Your task to perform on an android device: refresh tabs in the chrome app Image 0: 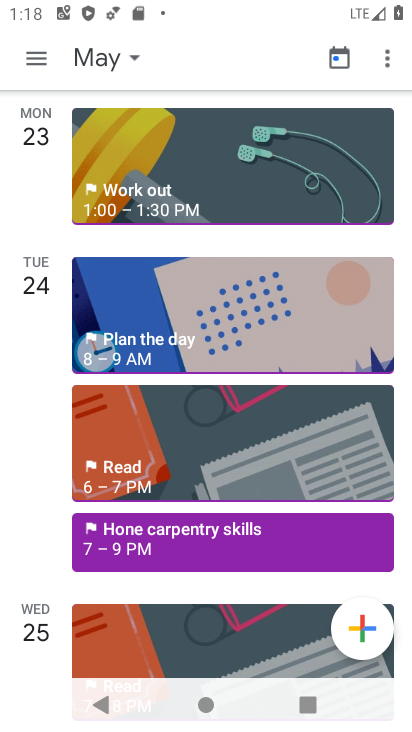
Step 0: press home button
Your task to perform on an android device: refresh tabs in the chrome app Image 1: 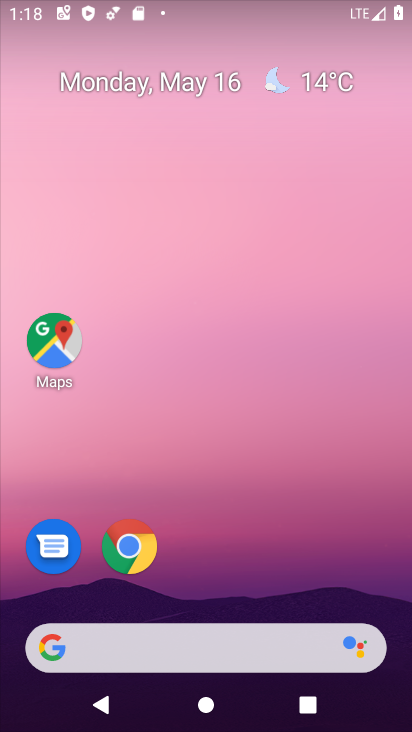
Step 1: drag from (228, 659) to (298, 269)
Your task to perform on an android device: refresh tabs in the chrome app Image 2: 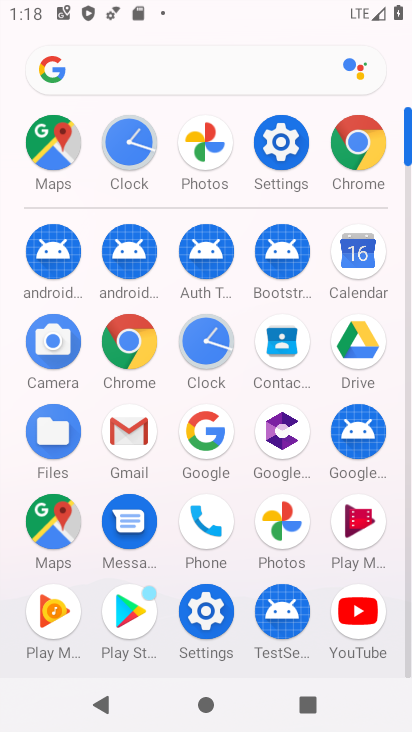
Step 2: click (131, 342)
Your task to perform on an android device: refresh tabs in the chrome app Image 3: 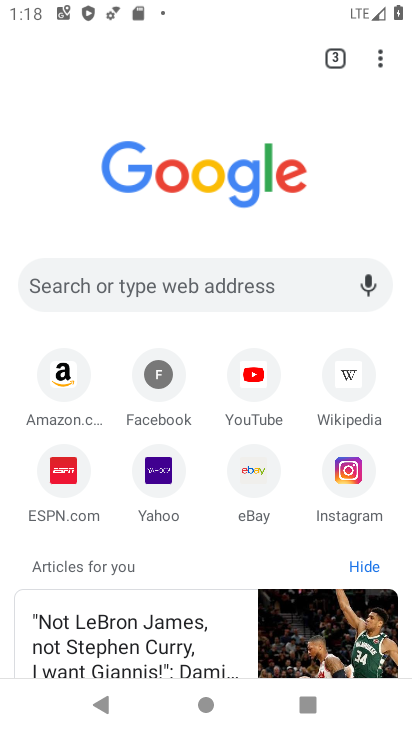
Step 3: click (380, 67)
Your task to perform on an android device: refresh tabs in the chrome app Image 4: 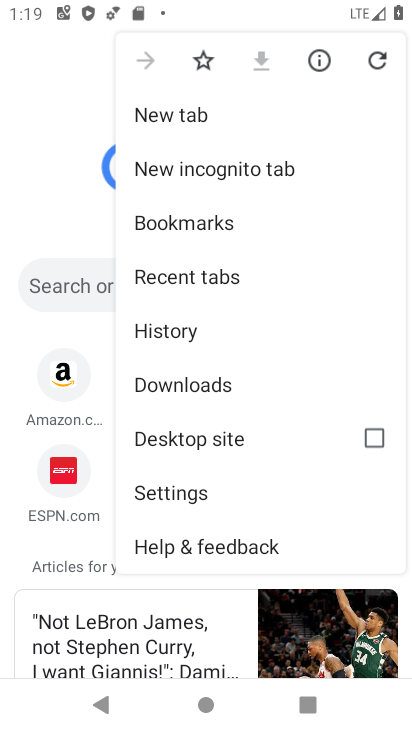
Step 4: click (377, 67)
Your task to perform on an android device: refresh tabs in the chrome app Image 5: 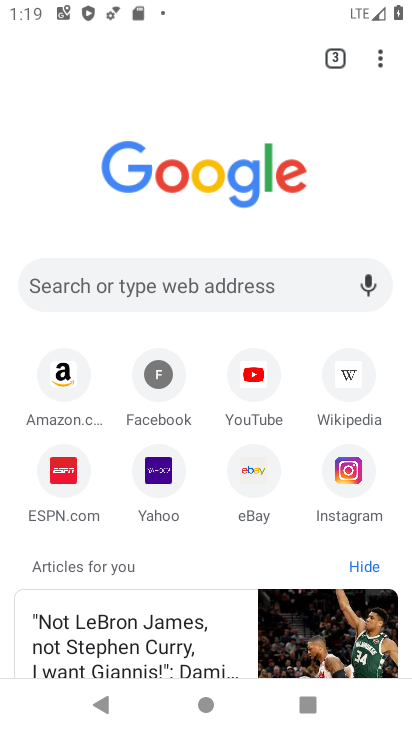
Step 5: task complete